Your task to perform on an android device: toggle translation in the chrome app Image 0: 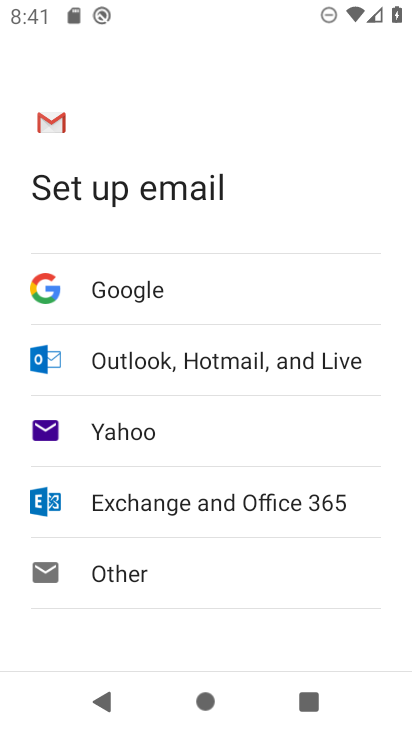
Step 0: press home button
Your task to perform on an android device: toggle translation in the chrome app Image 1: 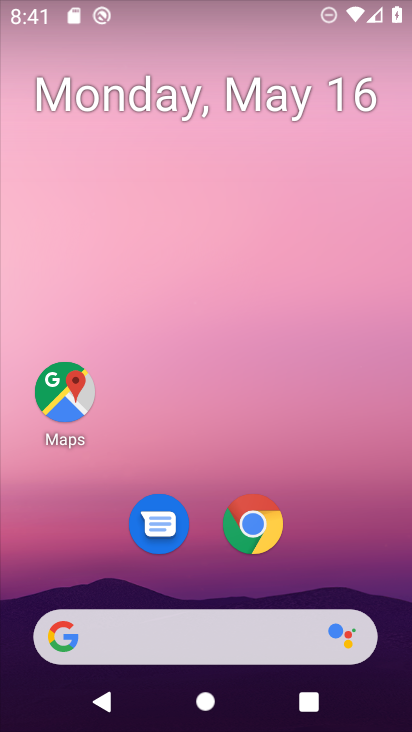
Step 1: click (255, 535)
Your task to perform on an android device: toggle translation in the chrome app Image 2: 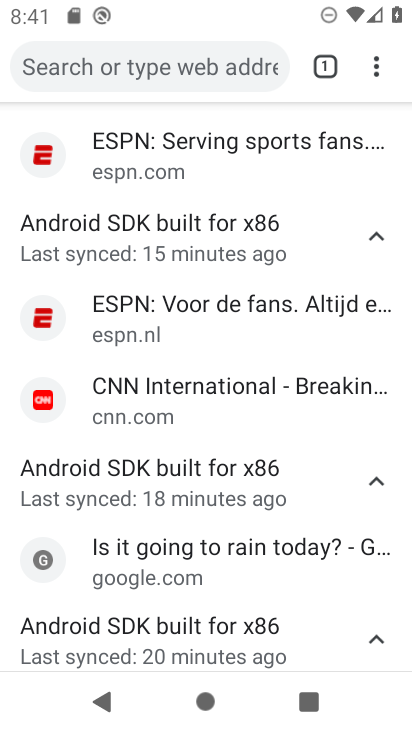
Step 2: click (368, 61)
Your task to perform on an android device: toggle translation in the chrome app Image 3: 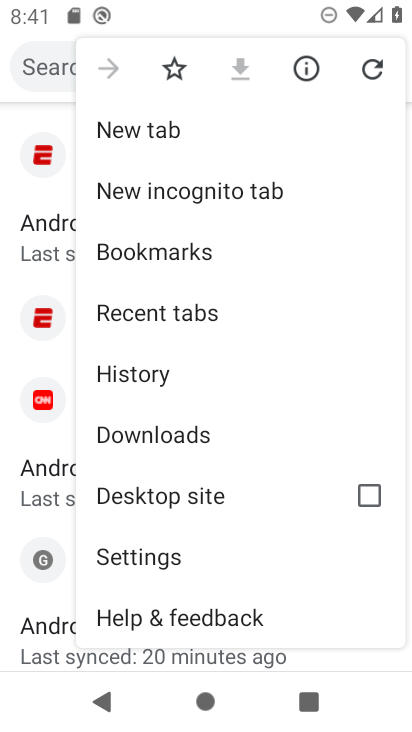
Step 3: click (192, 549)
Your task to perform on an android device: toggle translation in the chrome app Image 4: 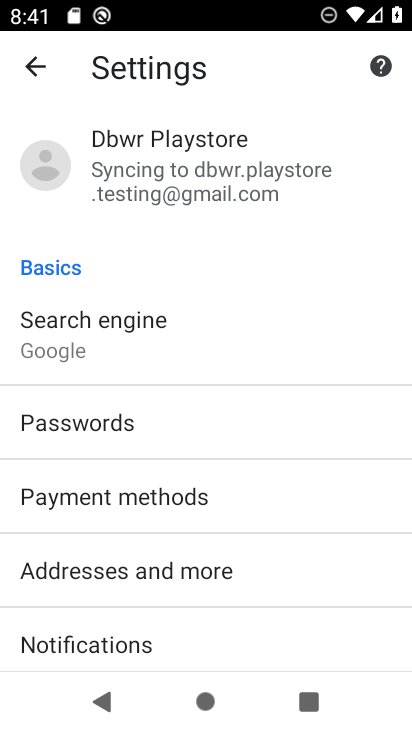
Step 4: drag from (231, 614) to (310, 156)
Your task to perform on an android device: toggle translation in the chrome app Image 5: 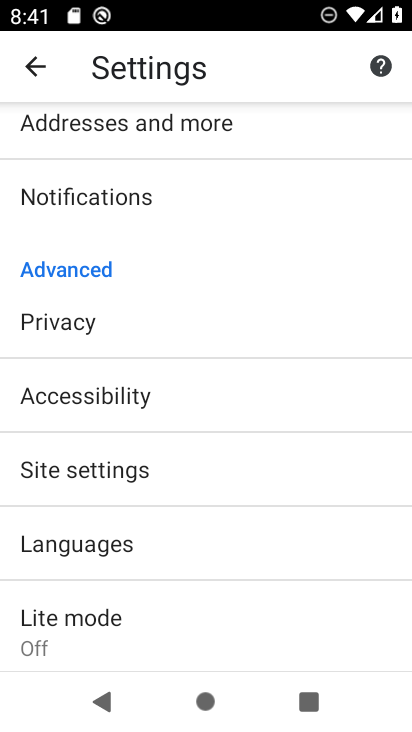
Step 5: click (175, 538)
Your task to perform on an android device: toggle translation in the chrome app Image 6: 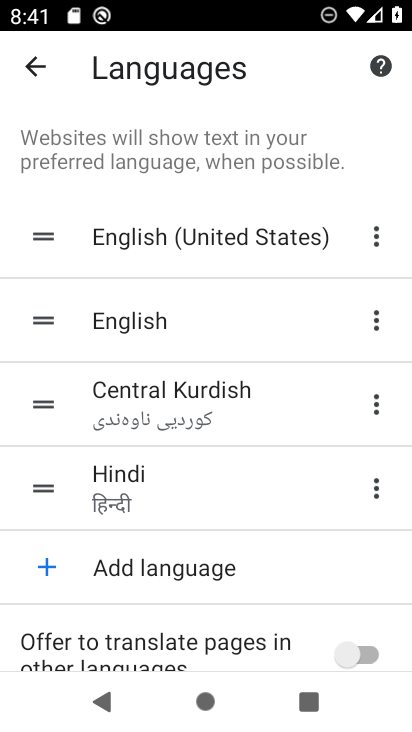
Step 6: drag from (290, 480) to (299, 363)
Your task to perform on an android device: toggle translation in the chrome app Image 7: 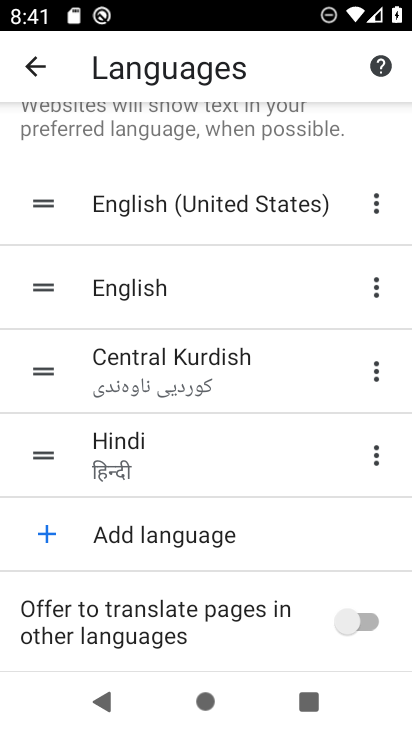
Step 7: click (360, 622)
Your task to perform on an android device: toggle translation in the chrome app Image 8: 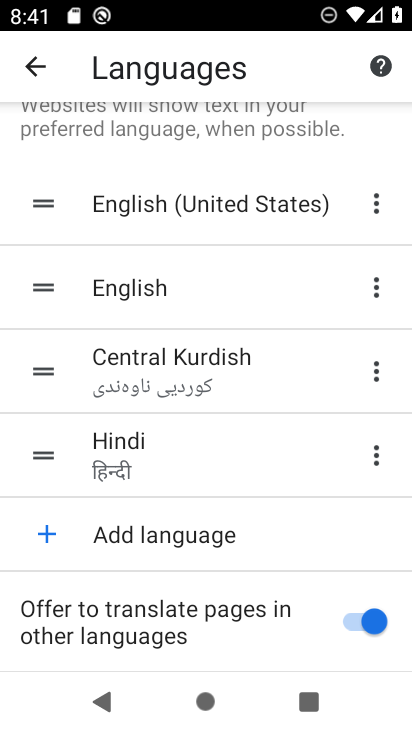
Step 8: task complete